Your task to perform on an android device: Open CNN.com Image 0: 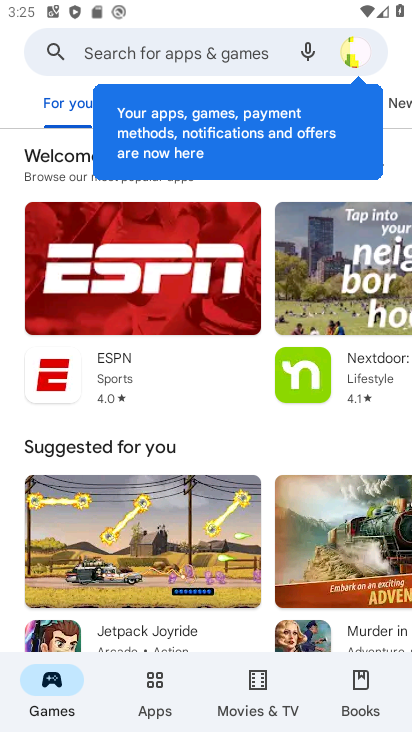
Step 0: press home button
Your task to perform on an android device: Open CNN.com Image 1: 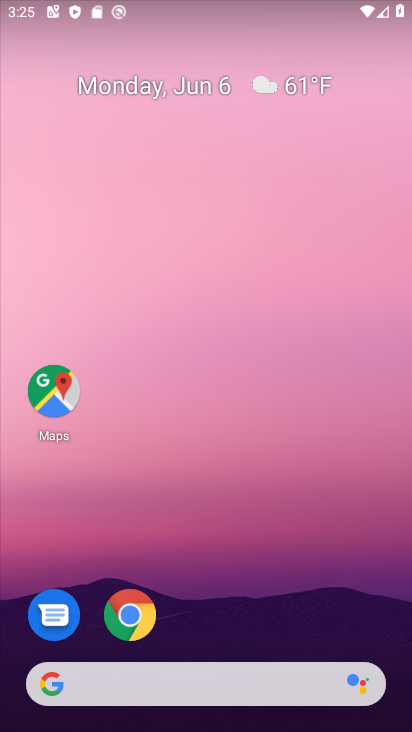
Step 1: click (131, 611)
Your task to perform on an android device: Open CNN.com Image 2: 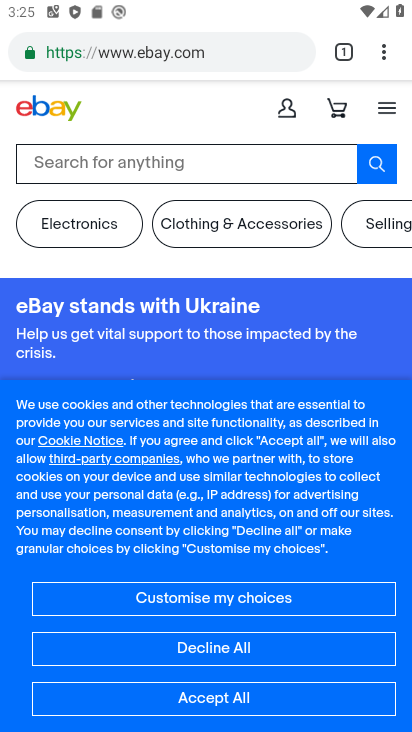
Step 2: click (233, 55)
Your task to perform on an android device: Open CNN.com Image 3: 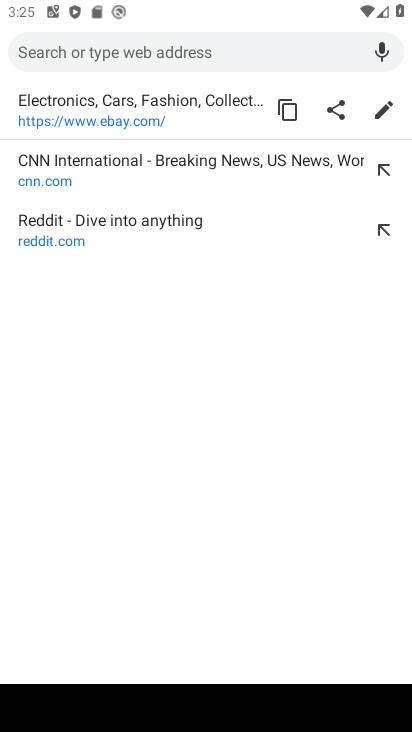
Step 3: type "cnn.com"
Your task to perform on an android device: Open CNN.com Image 4: 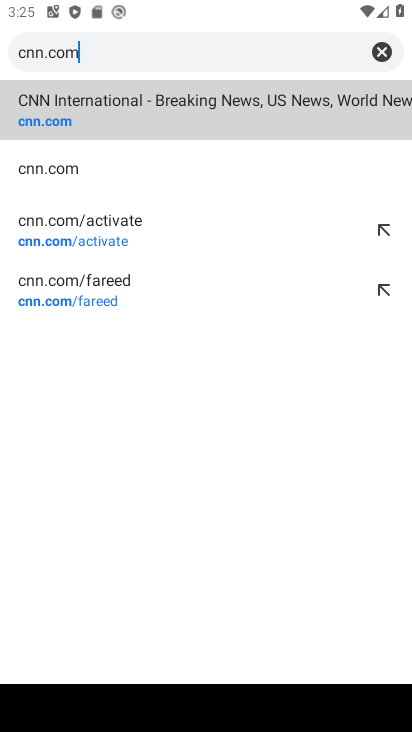
Step 4: click (86, 112)
Your task to perform on an android device: Open CNN.com Image 5: 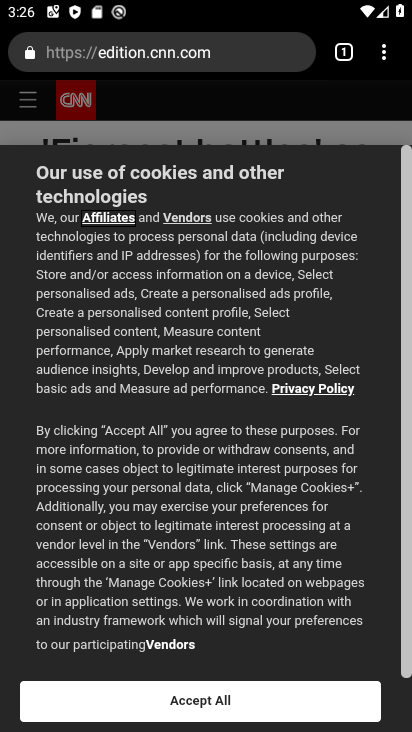
Step 5: task complete